Your task to perform on an android device: Open the calendar app, open the side menu, and click the "Day" option Image 0: 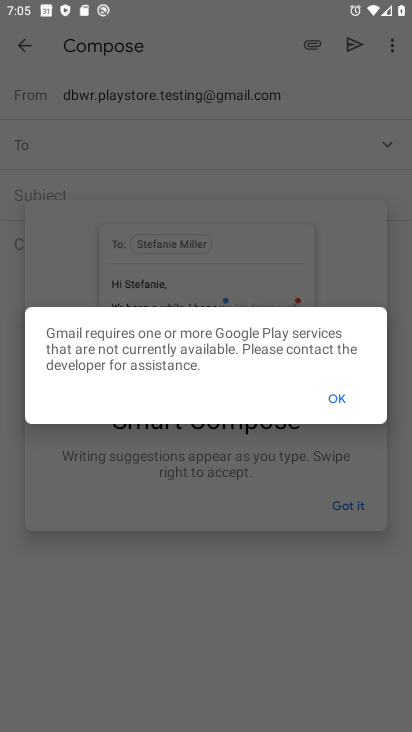
Step 0: drag from (343, 618) to (258, 37)
Your task to perform on an android device: Open the calendar app, open the side menu, and click the "Day" option Image 1: 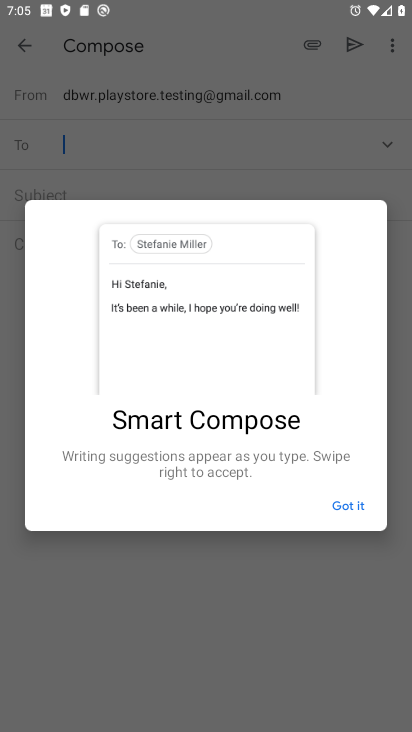
Step 1: press home button
Your task to perform on an android device: Open the calendar app, open the side menu, and click the "Day" option Image 2: 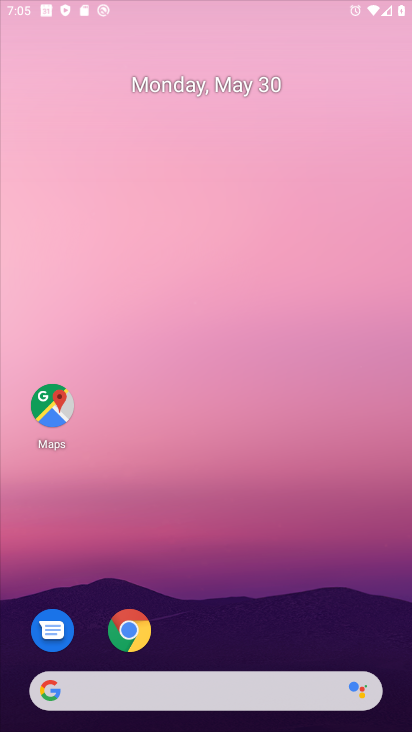
Step 2: drag from (329, 655) to (222, 11)
Your task to perform on an android device: Open the calendar app, open the side menu, and click the "Day" option Image 3: 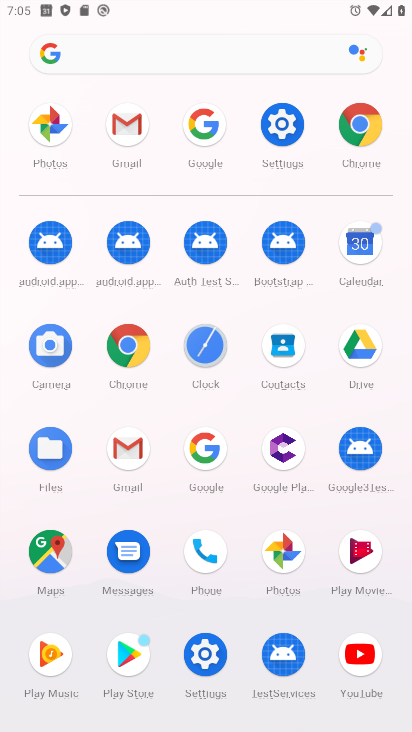
Step 3: click (355, 251)
Your task to perform on an android device: Open the calendar app, open the side menu, and click the "Day" option Image 4: 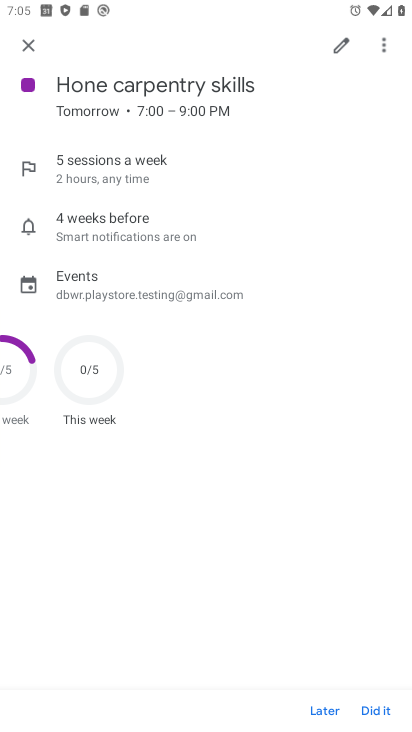
Step 4: press back button
Your task to perform on an android device: Open the calendar app, open the side menu, and click the "Day" option Image 5: 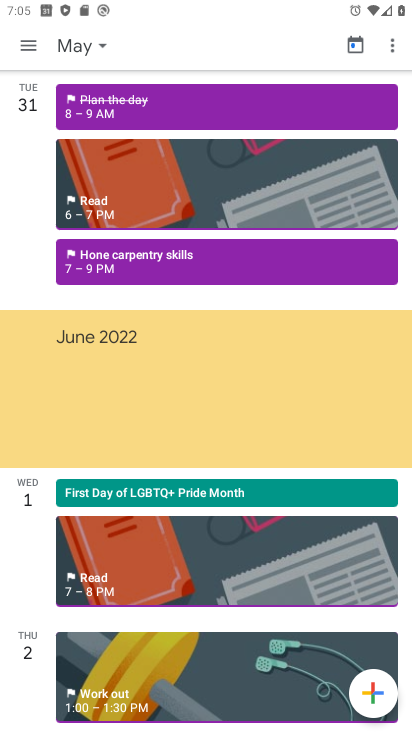
Step 5: click (26, 38)
Your task to perform on an android device: Open the calendar app, open the side menu, and click the "Day" option Image 6: 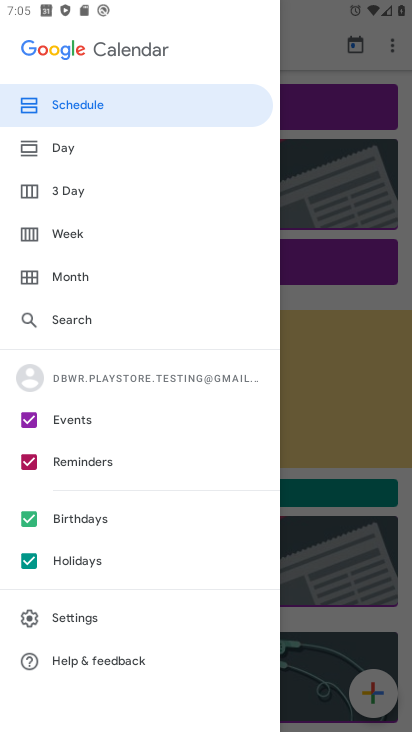
Step 6: click (95, 145)
Your task to perform on an android device: Open the calendar app, open the side menu, and click the "Day" option Image 7: 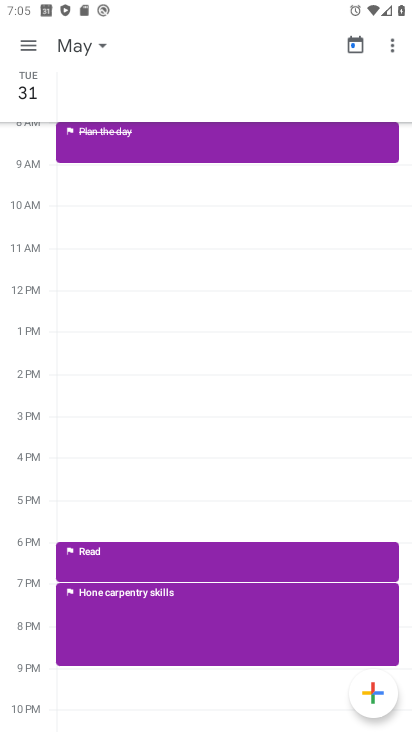
Step 7: task complete